Your task to perform on an android device: create a new album in the google photos Image 0: 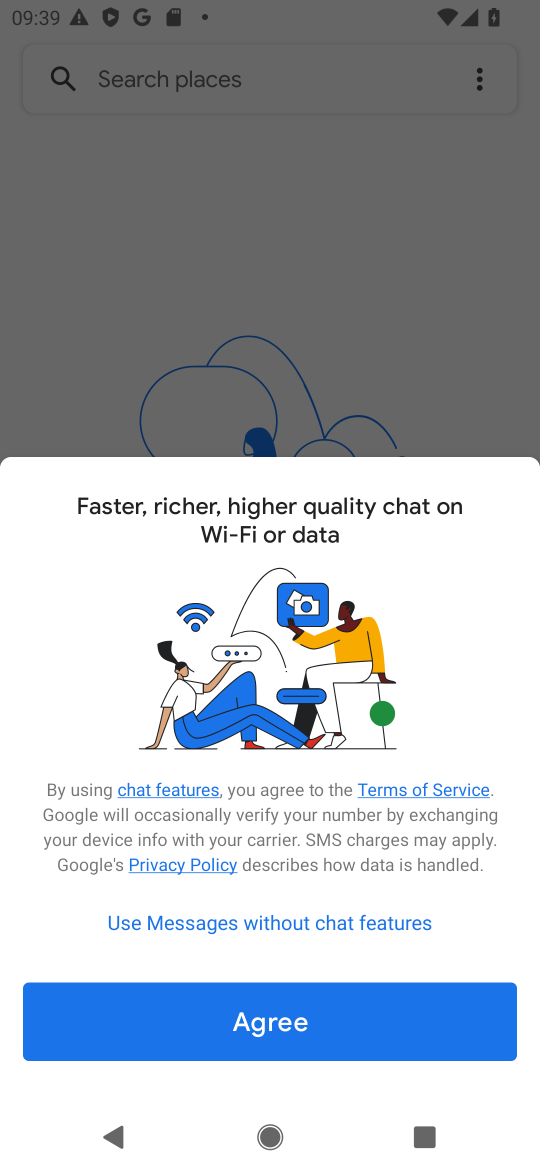
Step 0: press home button
Your task to perform on an android device: create a new album in the google photos Image 1: 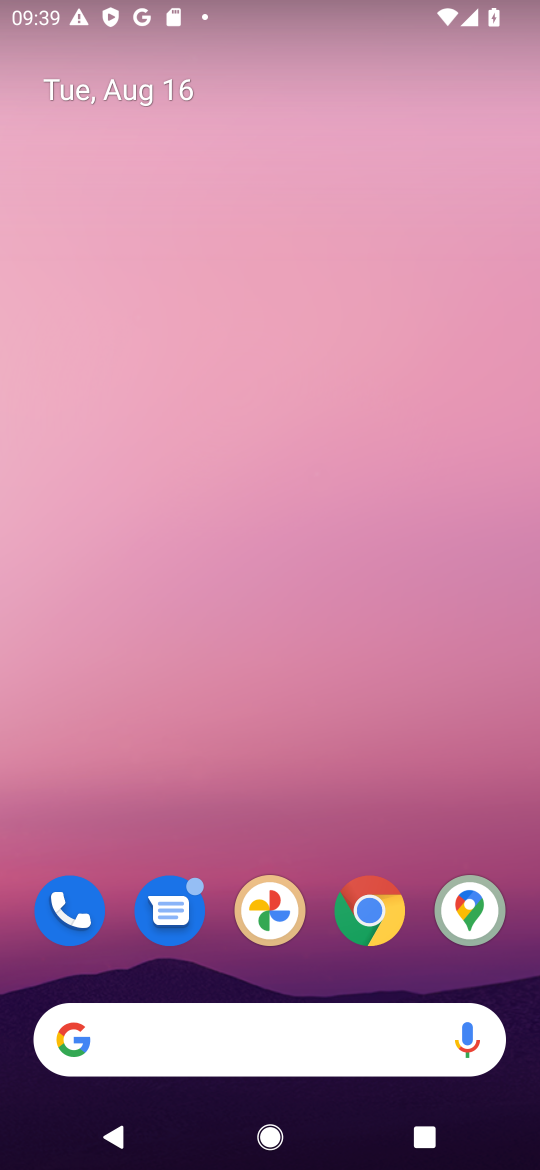
Step 1: click (272, 906)
Your task to perform on an android device: create a new album in the google photos Image 2: 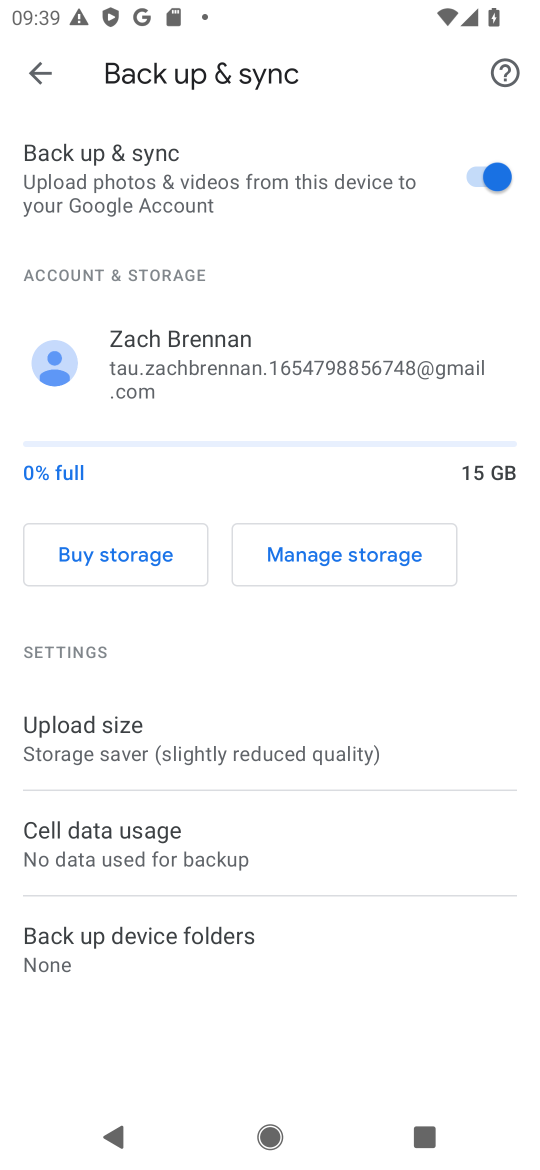
Step 2: click (36, 64)
Your task to perform on an android device: create a new album in the google photos Image 3: 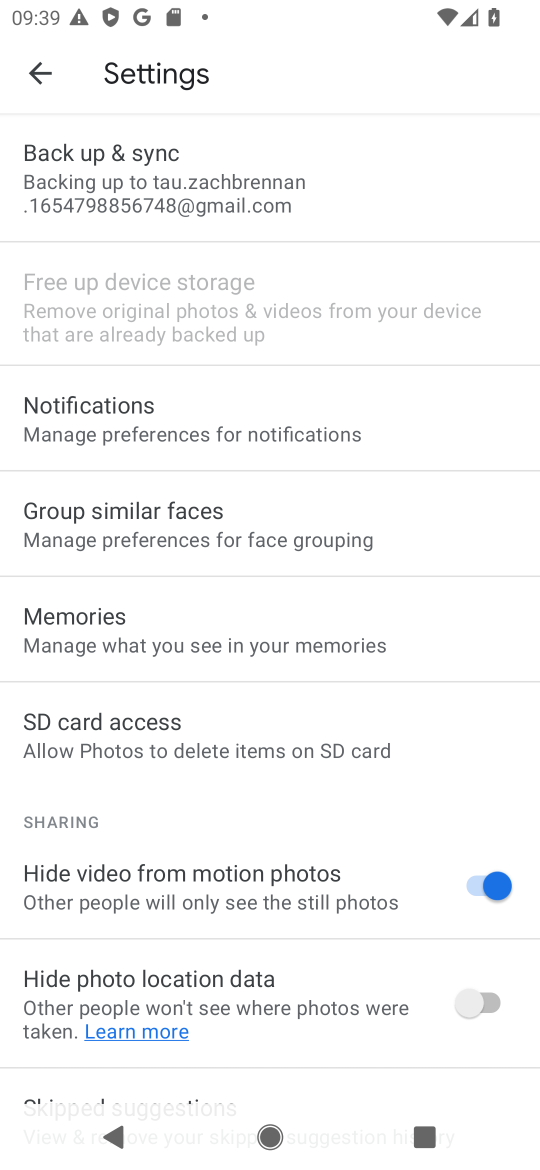
Step 3: click (41, 66)
Your task to perform on an android device: create a new album in the google photos Image 4: 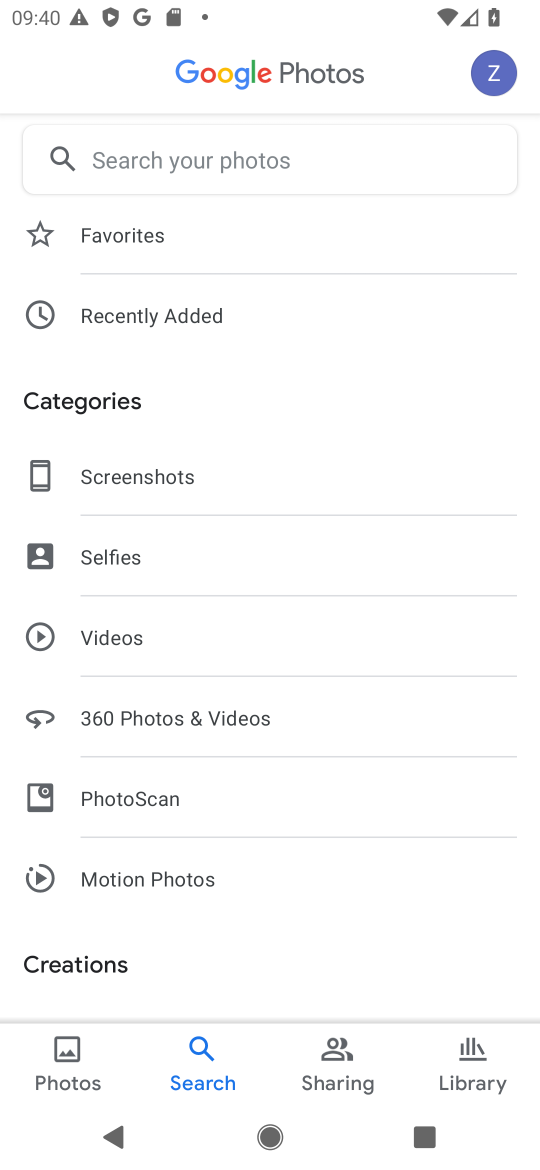
Step 4: click (495, 77)
Your task to perform on an android device: create a new album in the google photos Image 5: 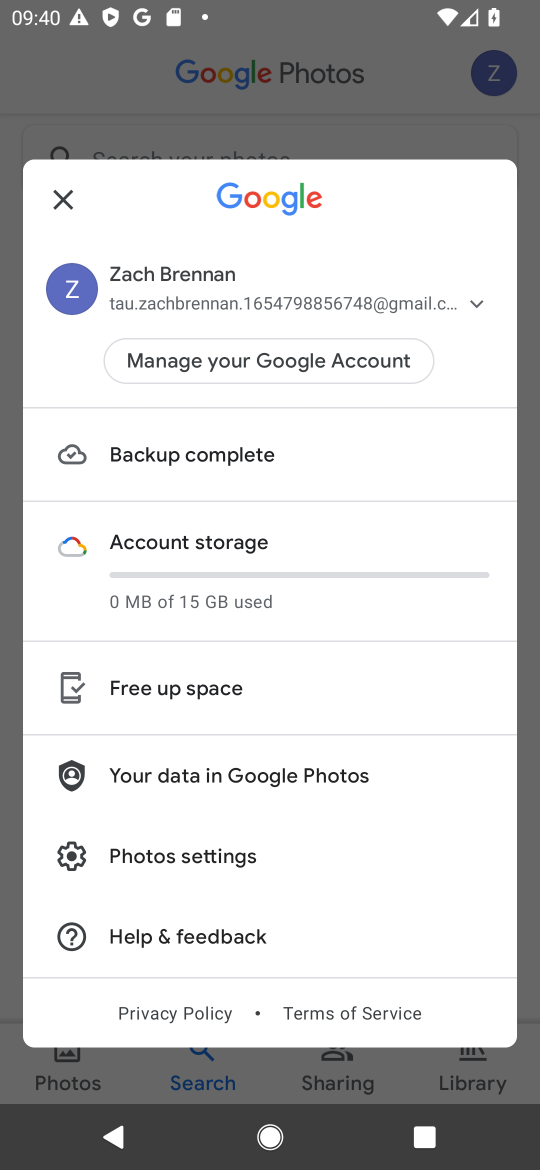
Step 5: click (63, 189)
Your task to perform on an android device: create a new album in the google photos Image 6: 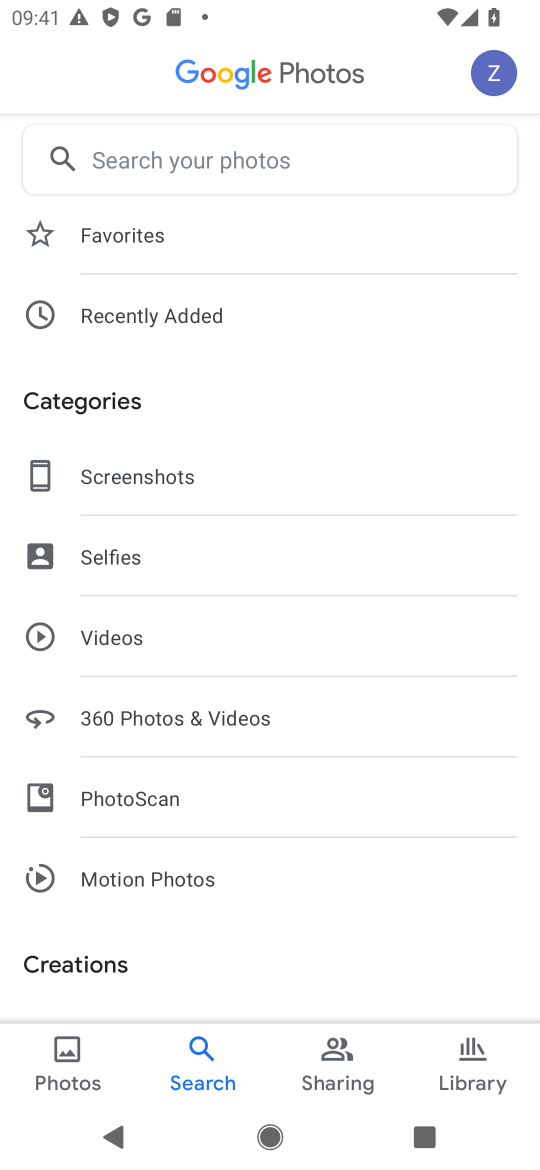
Step 6: drag from (310, 804) to (255, 238)
Your task to perform on an android device: create a new album in the google photos Image 7: 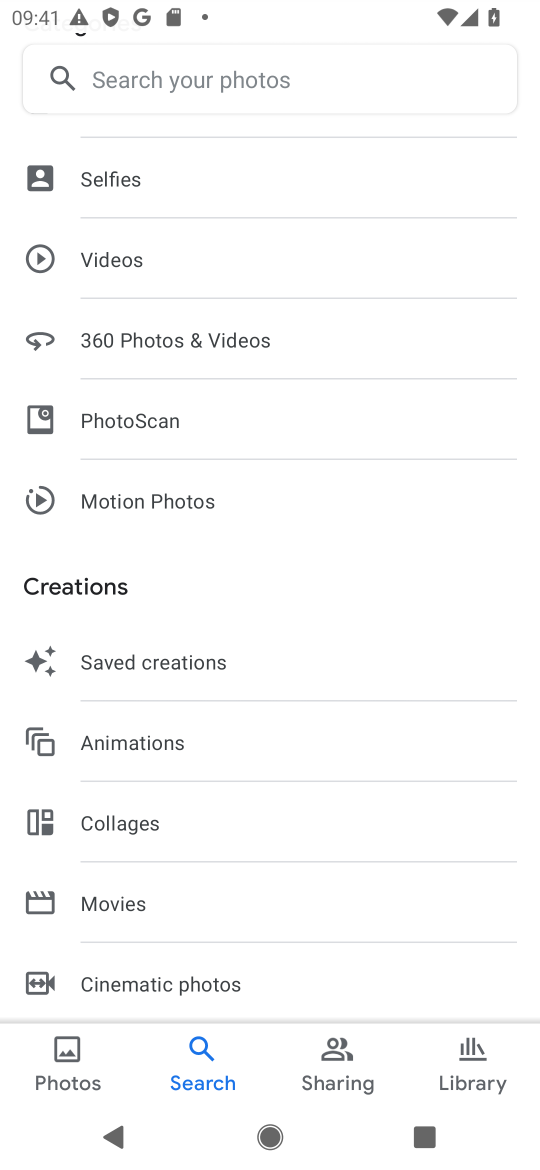
Step 7: drag from (229, 389) to (306, 947)
Your task to perform on an android device: create a new album in the google photos Image 8: 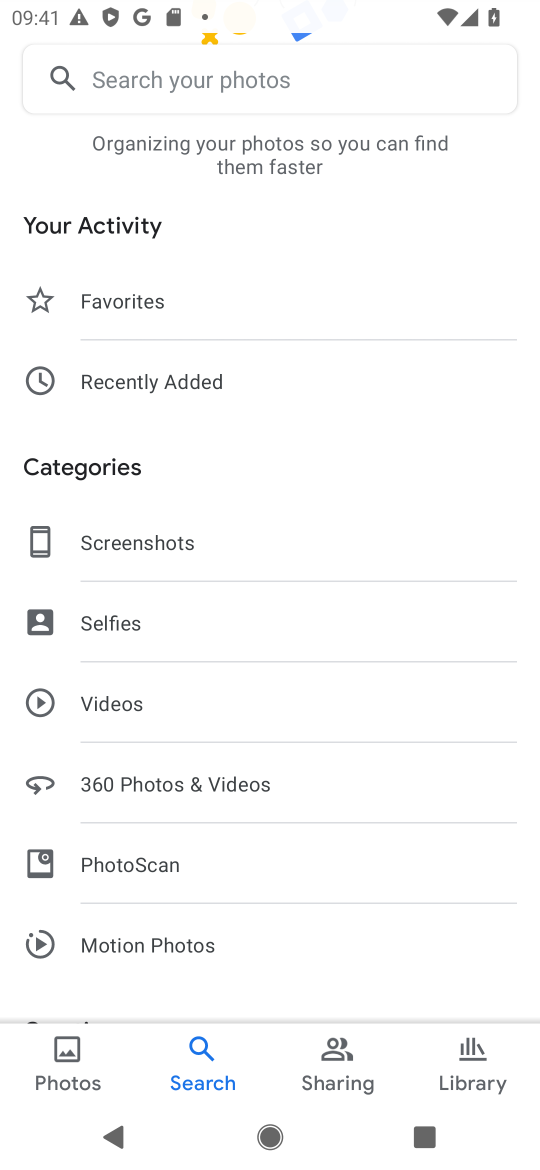
Step 8: click (213, 69)
Your task to perform on an android device: create a new album in the google photos Image 9: 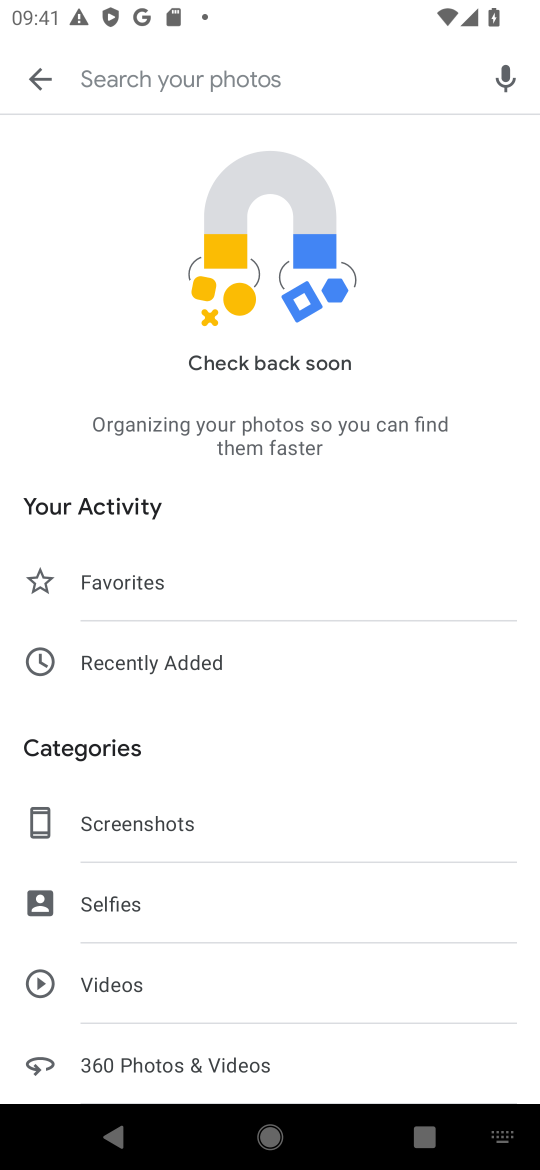
Step 9: type "new album"
Your task to perform on an android device: create a new album in the google photos Image 10: 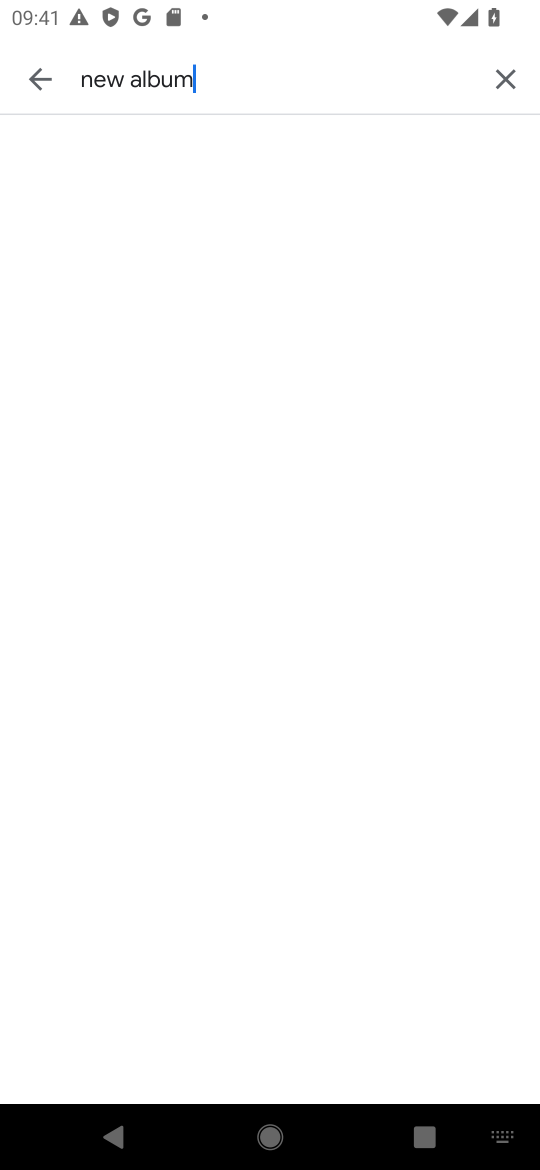
Step 10: click (262, 73)
Your task to perform on an android device: create a new album in the google photos Image 11: 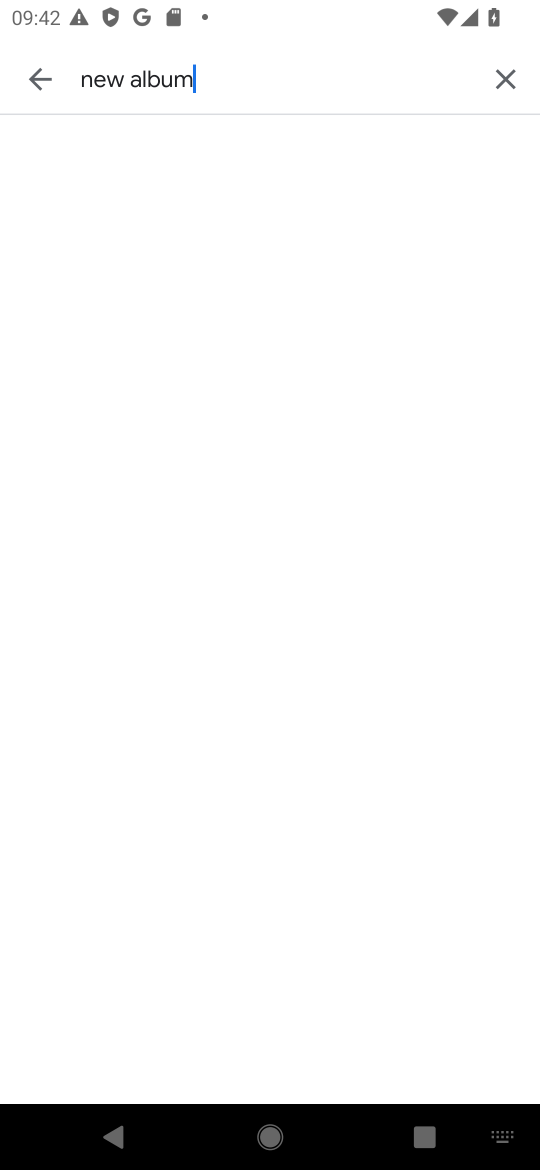
Step 11: click (38, 71)
Your task to perform on an android device: create a new album in the google photos Image 12: 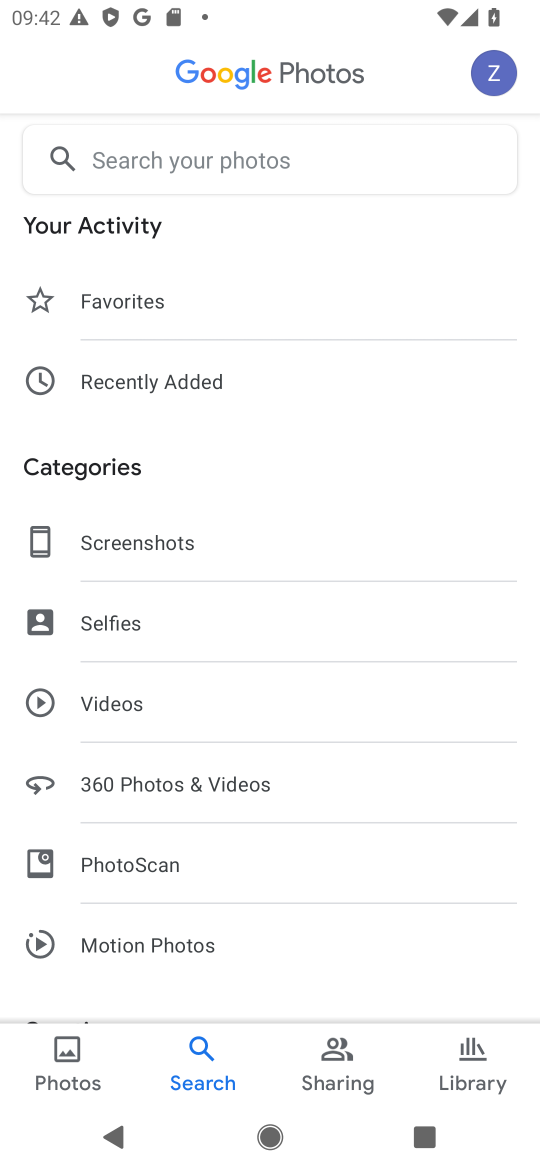
Step 12: click (491, 73)
Your task to perform on an android device: create a new album in the google photos Image 13: 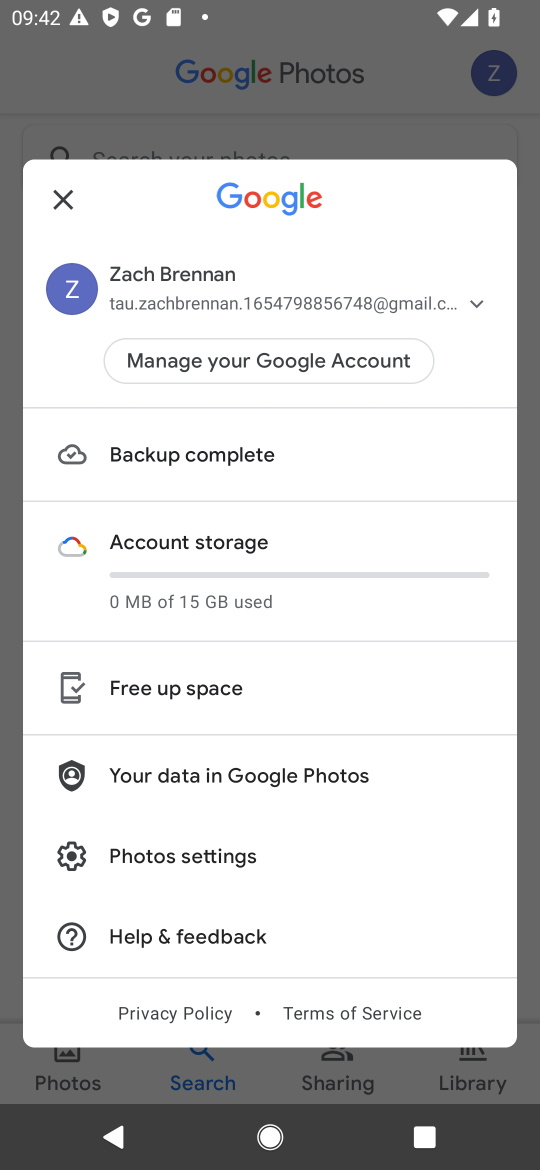
Step 13: drag from (332, 877) to (293, 496)
Your task to perform on an android device: create a new album in the google photos Image 14: 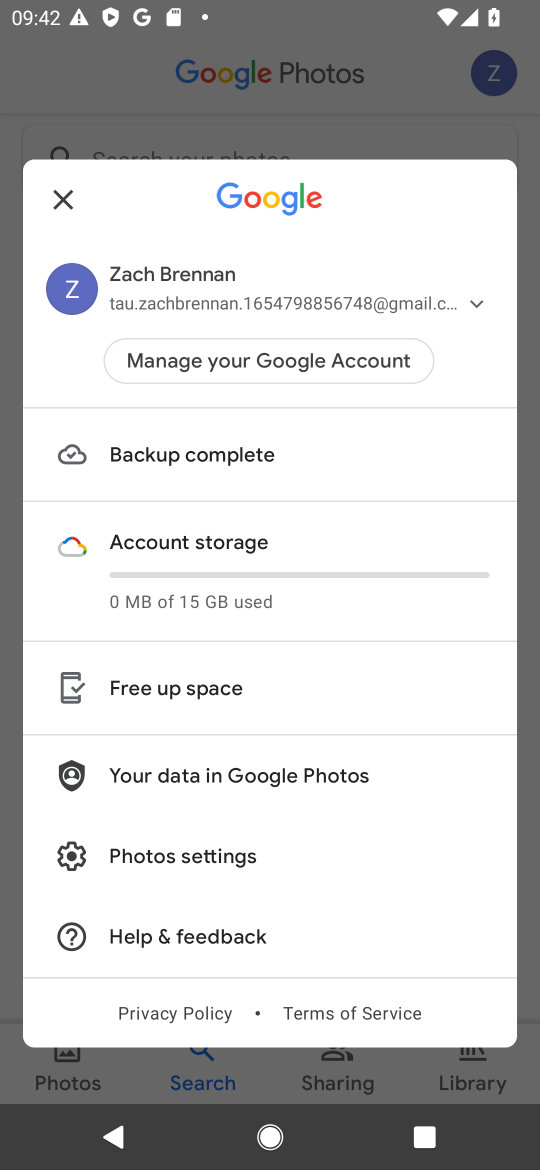
Step 14: click (68, 189)
Your task to perform on an android device: create a new album in the google photos Image 15: 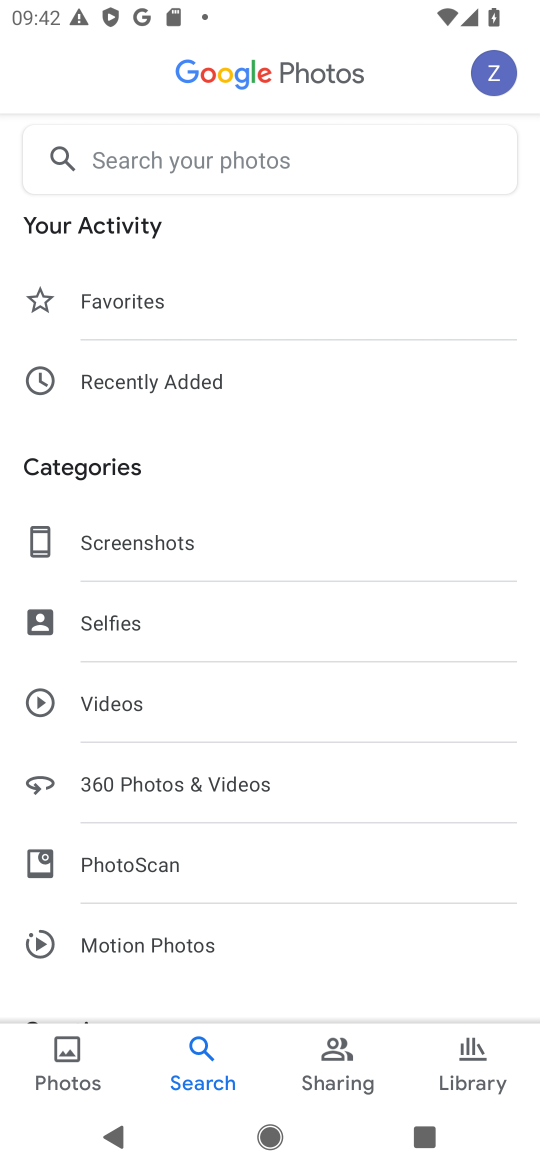
Step 15: click (474, 1056)
Your task to perform on an android device: create a new album in the google photos Image 16: 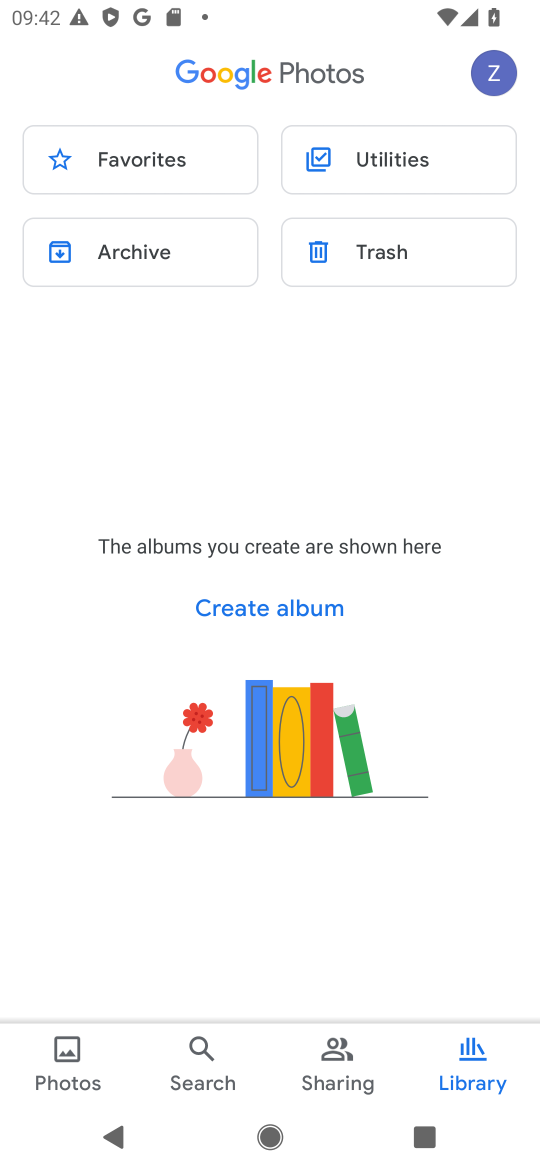
Step 16: click (290, 594)
Your task to perform on an android device: create a new album in the google photos Image 17: 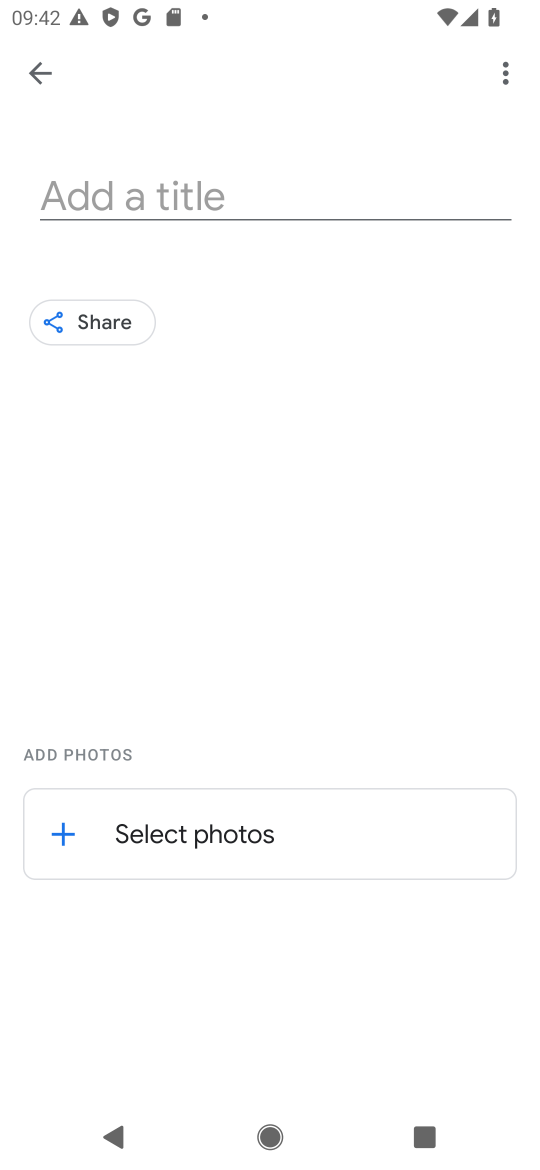
Step 17: click (215, 174)
Your task to perform on an android device: create a new album in the google photos Image 18: 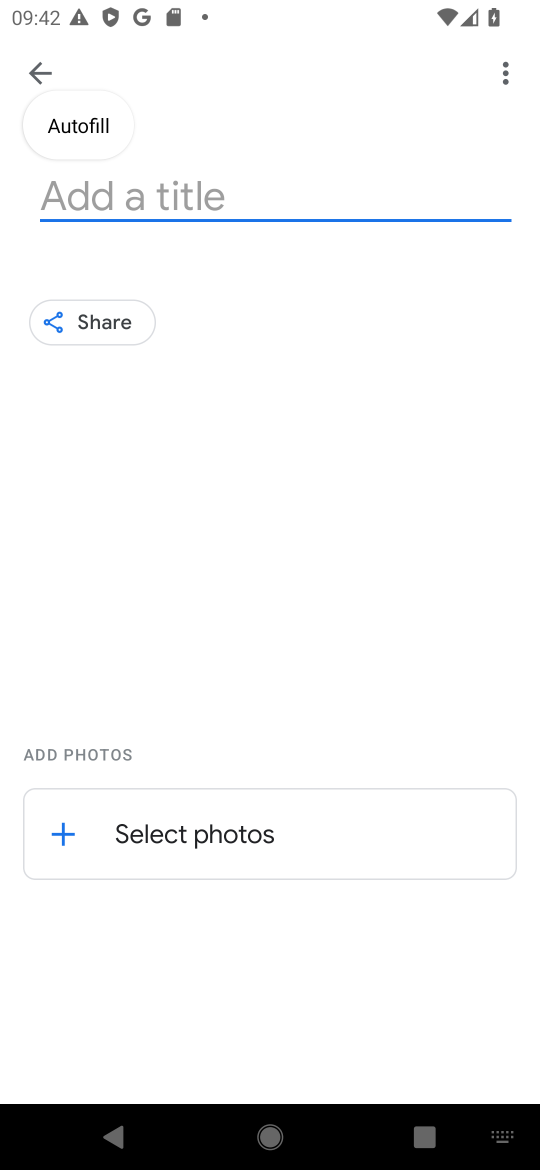
Step 18: type "Prayag"
Your task to perform on an android device: create a new album in the google photos Image 19: 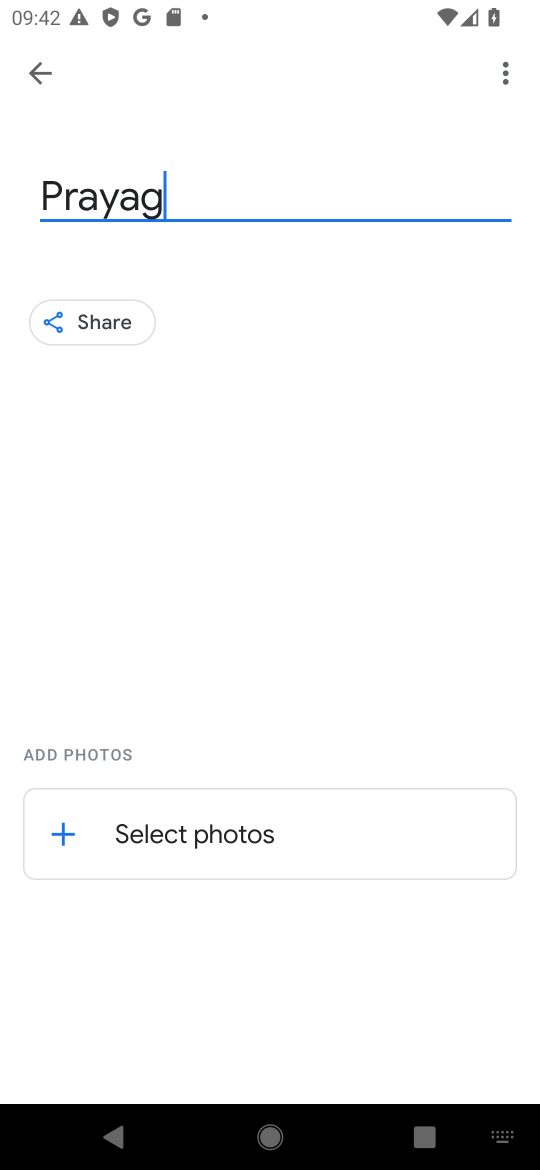
Step 19: type "raj"
Your task to perform on an android device: create a new album in the google photos Image 20: 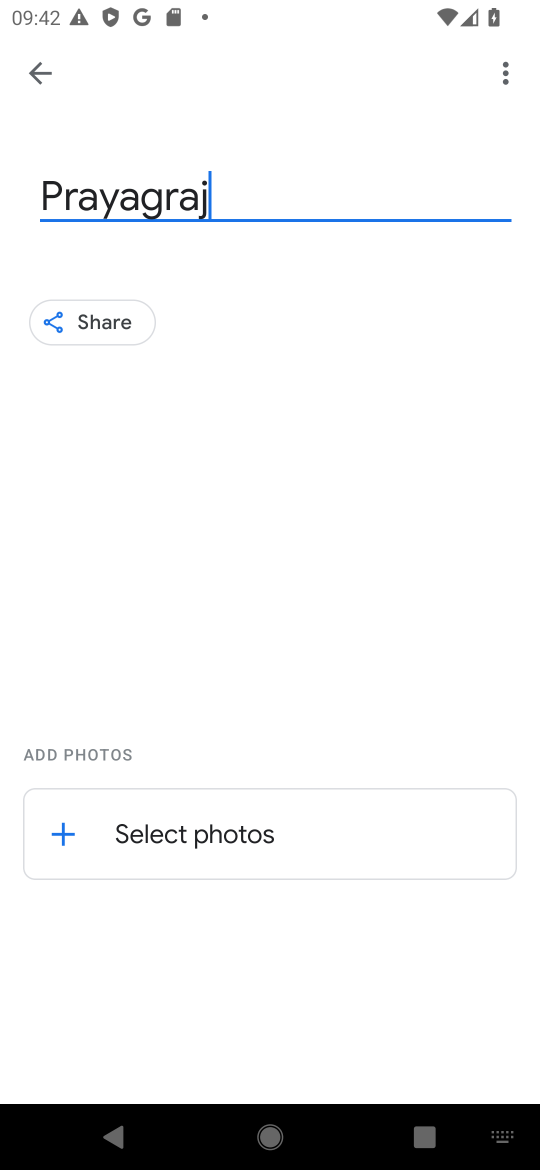
Step 20: click (58, 830)
Your task to perform on an android device: create a new album in the google photos Image 21: 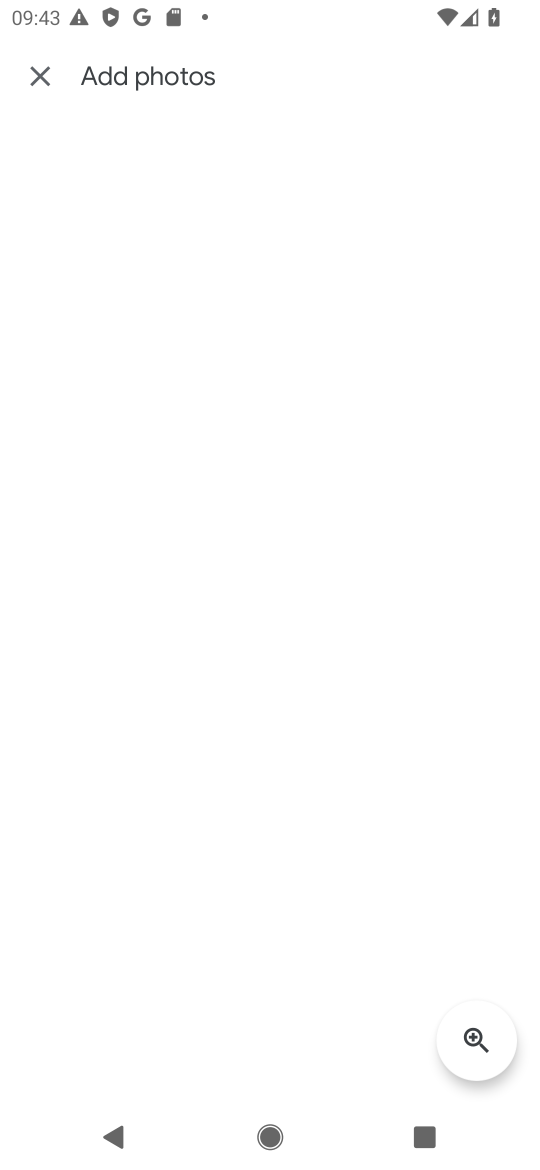
Step 21: click (173, 503)
Your task to perform on an android device: create a new album in the google photos Image 22: 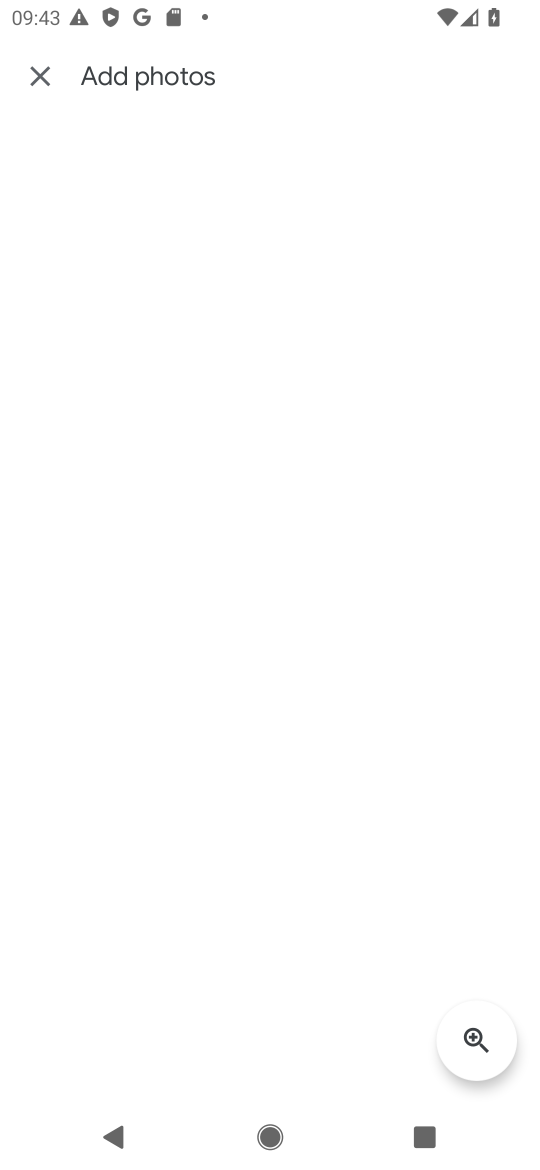
Step 22: task complete